Your task to perform on an android device: change the clock display to analog Image 0: 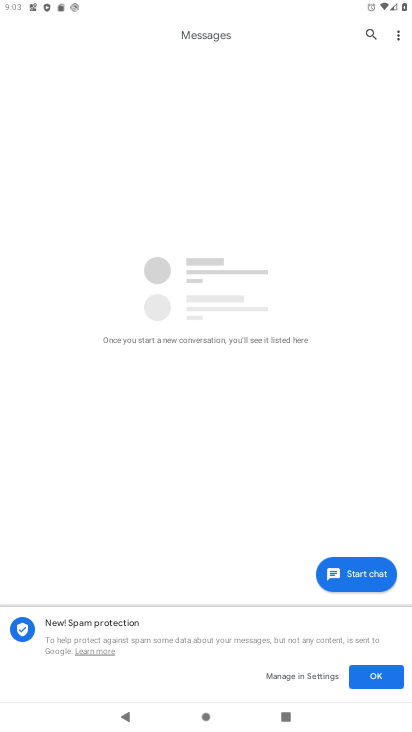
Step 0: press home button
Your task to perform on an android device: change the clock display to analog Image 1: 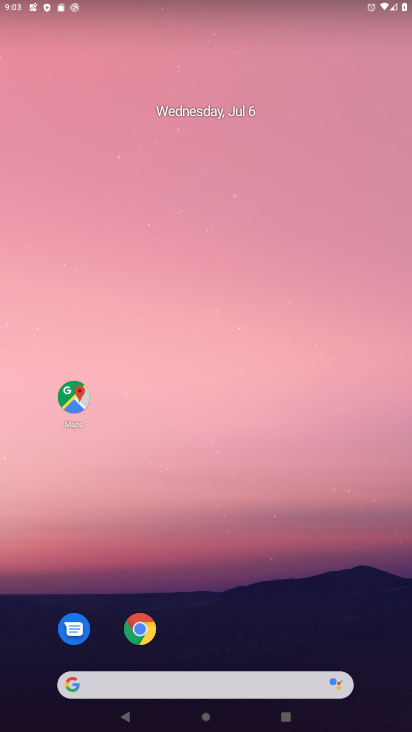
Step 1: drag from (6, 611) to (243, 153)
Your task to perform on an android device: change the clock display to analog Image 2: 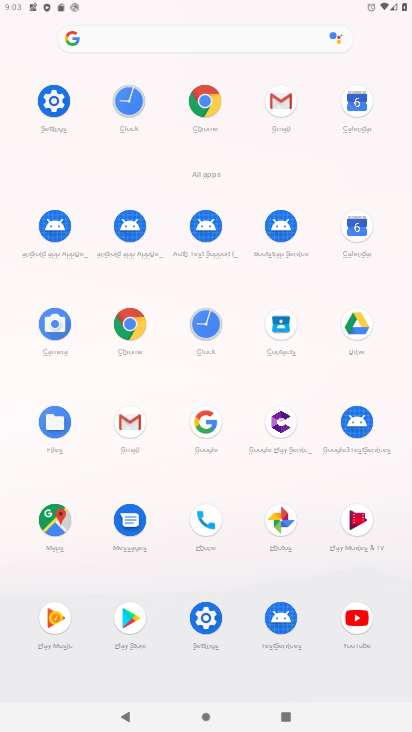
Step 2: click (125, 102)
Your task to perform on an android device: change the clock display to analog Image 3: 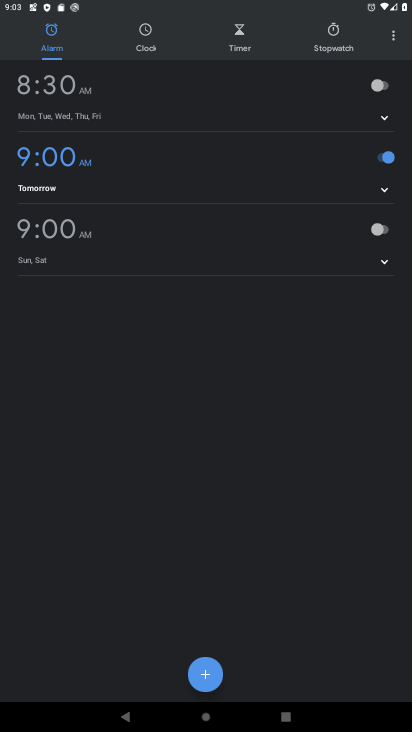
Step 3: click (393, 39)
Your task to perform on an android device: change the clock display to analog Image 4: 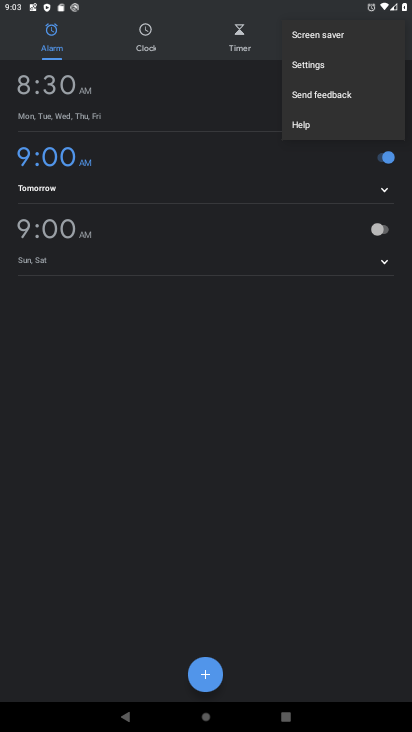
Step 4: click (315, 64)
Your task to perform on an android device: change the clock display to analog Image 5: 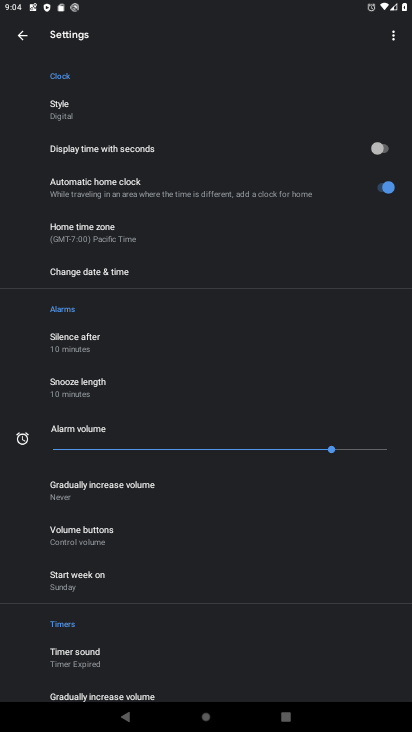
Step 5: click (118, 105)
Your task to perform on an android device: change the clock display to analog Image 6: 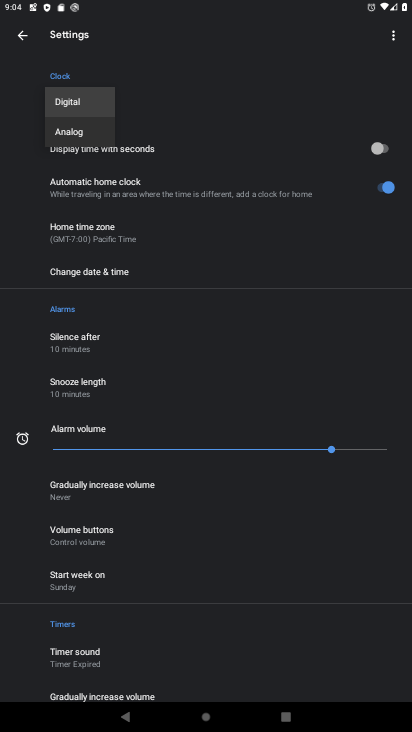
Step 6: click (97, 132)
Your task to perform on an android device: change the clock display to analog Image 7: 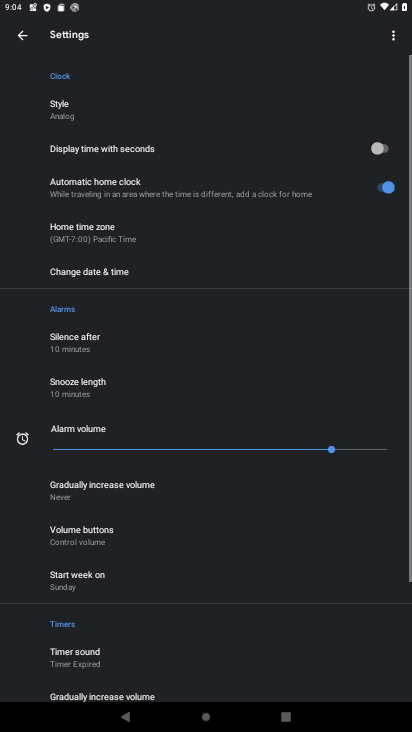
Step 7: task complete